Your task to perform on an android device: turn off picture-in-picture Image 0: 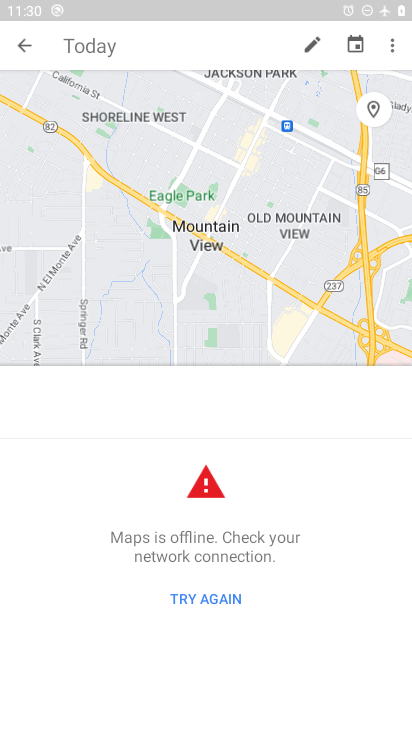
Step 0: press home button
Your task to perform on an android device: turn off picture-in-picture Image 1: 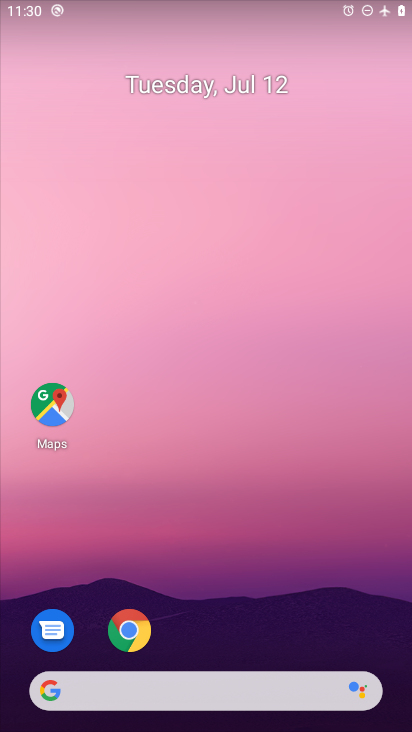
Step 1: click (137, 638)
Your task to perform on an android device: turn off picture-in-picture Image 2: 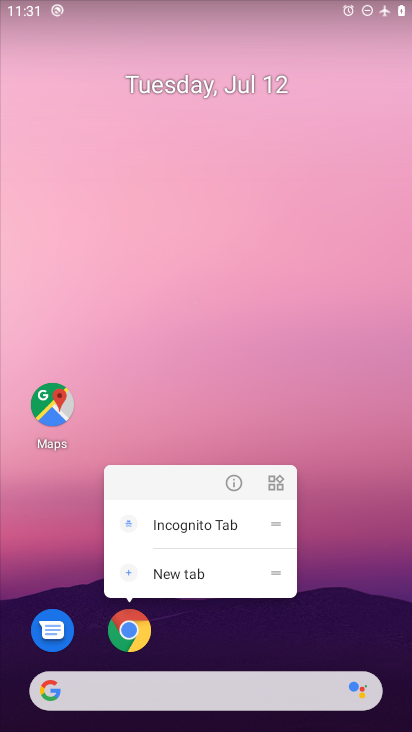
Step 2: click (232, 483)
Your task to perform on an android device: turn off picture-in-picture Image 3: 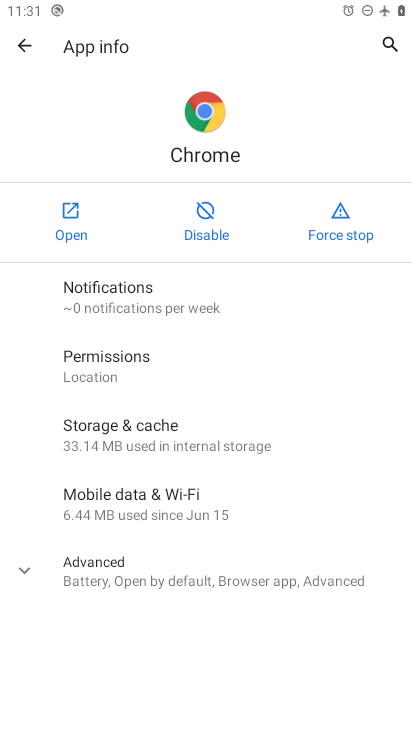
Step 3: click (20, 573)
Your task to perform on an android device: turn off picture-in-picture Image 4: 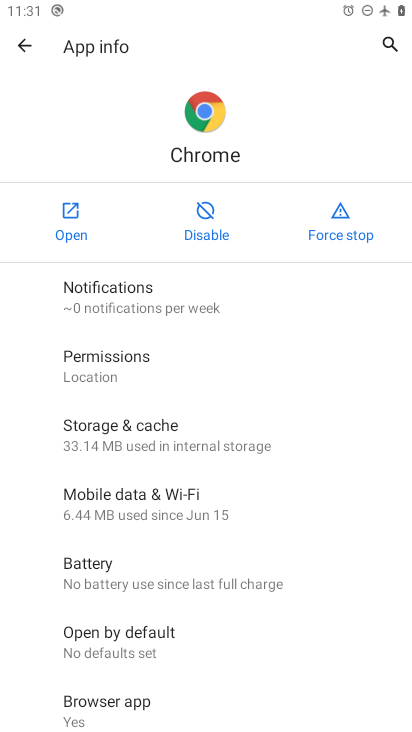
Step 4: drag from (266, 664) to (257, 276)
Your task to perform on an android device: turn off picture-in-picture Image 5: 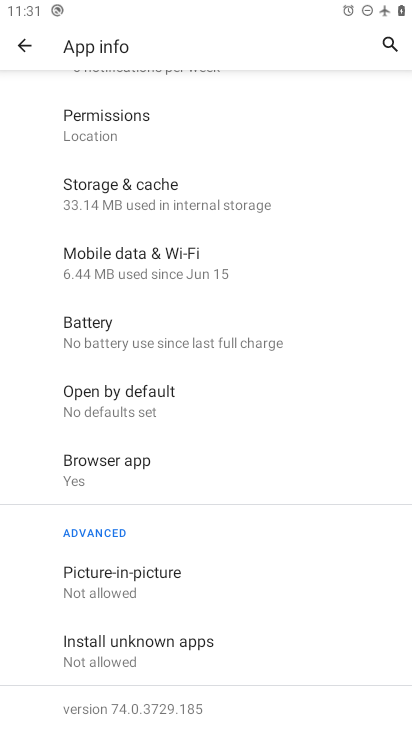
Step 5: click (106, 590)
Your task to perform on an android device: turn off picture-in-picture Image 6: 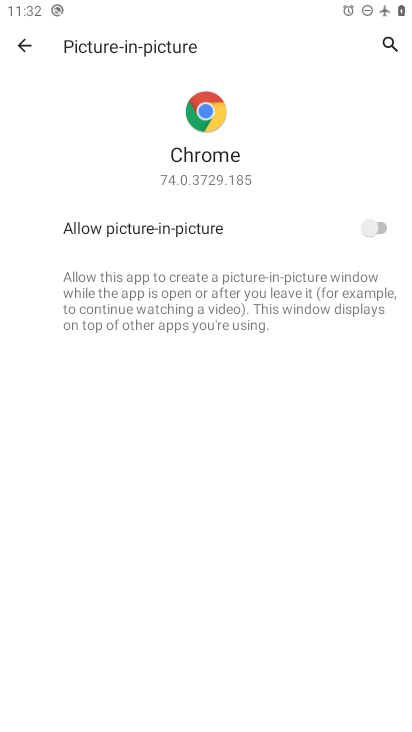
Step 6: task complete